Your task to perform on an android device: check android version Image 0: 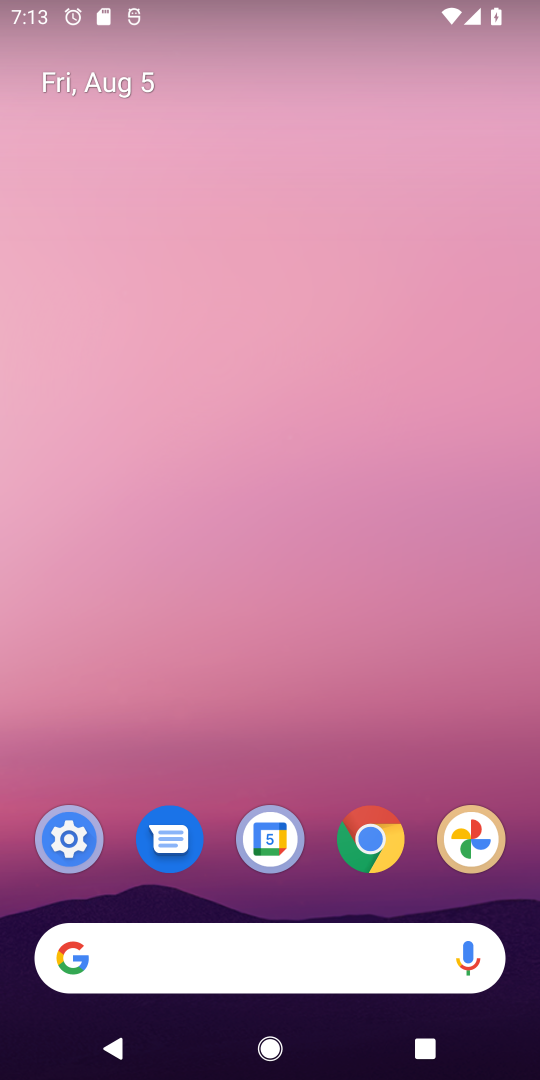
Step 0: click (91, 827)
Your task to perform on an android device: check android version Image 1: 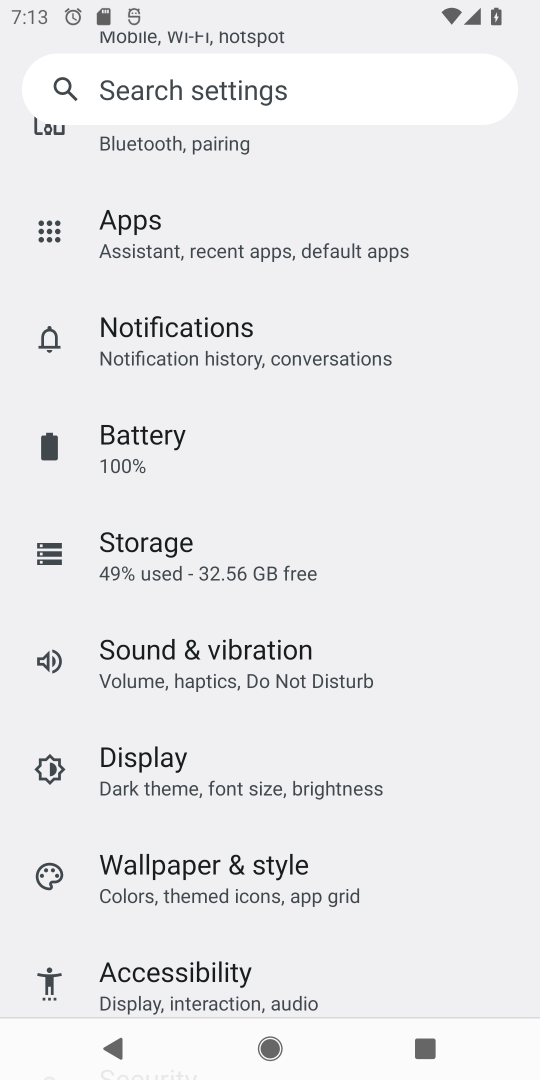
Step 1: drag from (307, 892) to (324, 305)
Your task to perform on an android device: check android version Image 2: 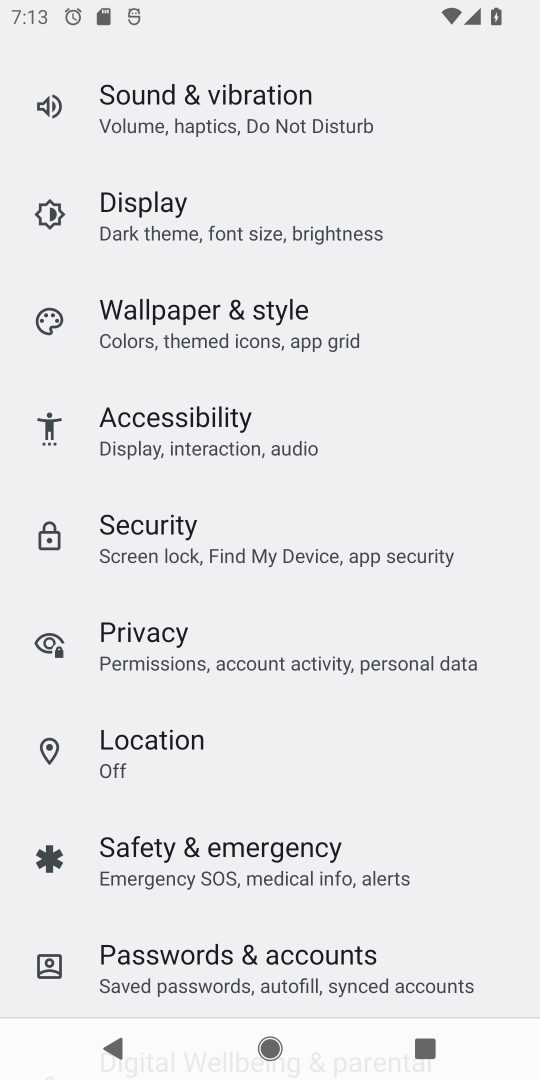
Step 2: drag from (370, 899) to (346, 300)
Your task to perform on an android device: check android version Image 3: 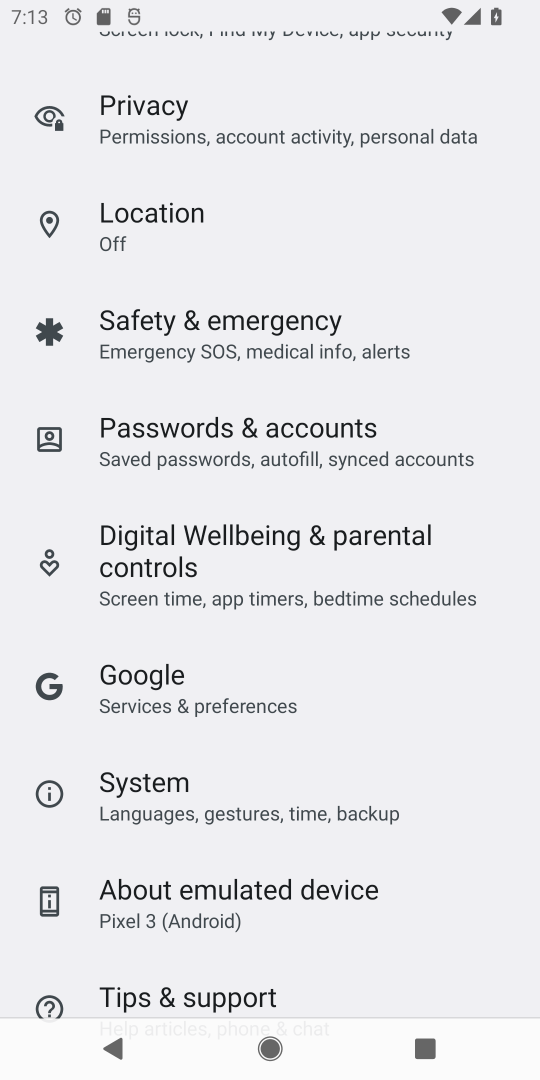
Step 3: click (264, 925)
Your task to perform on an android device: check android version Image 4: 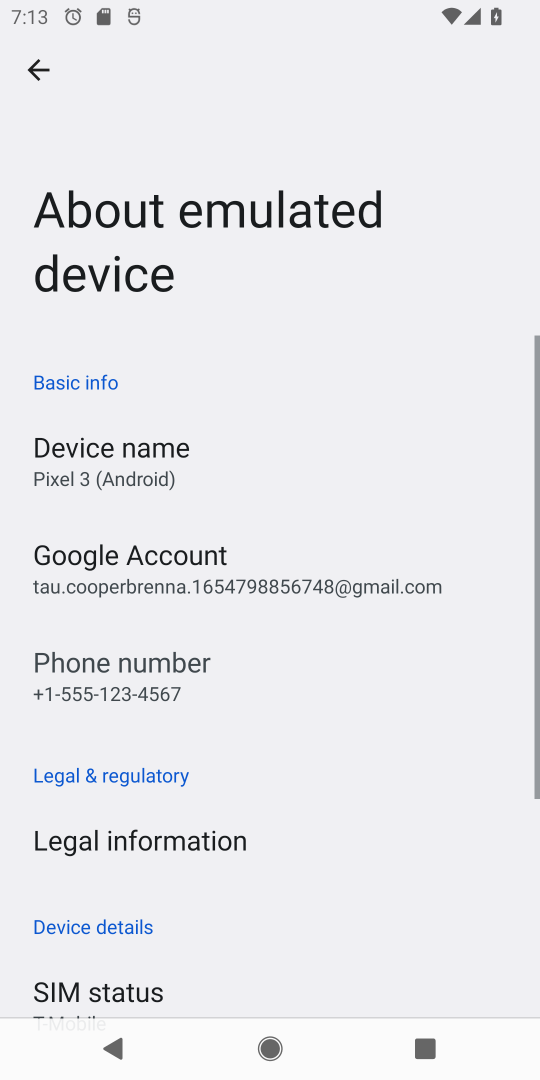
Step 4: drag from (305, 908) to (352, 184)
Your task to perform on an android device: check android version Image 5: 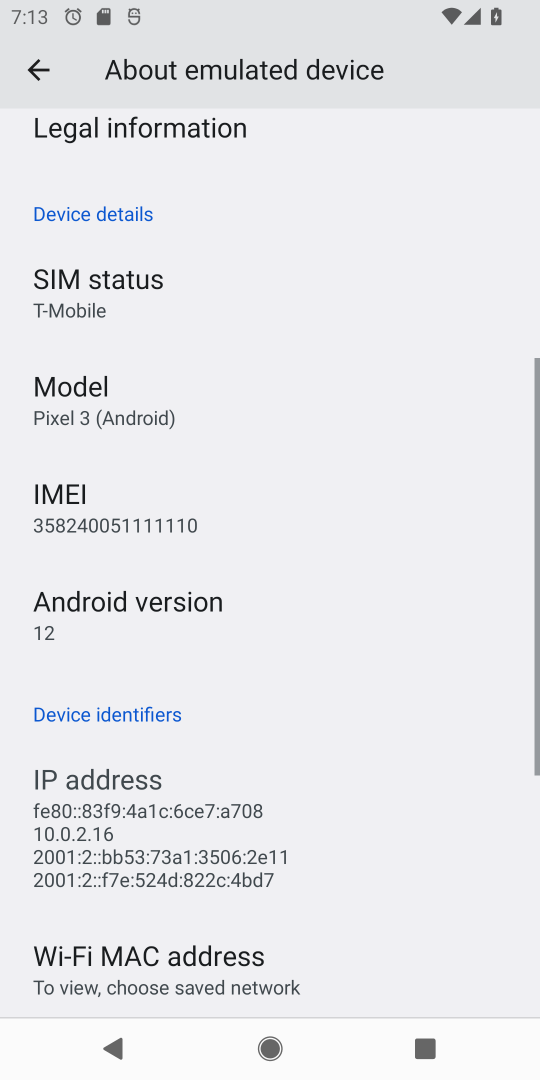
Step 5: click (274, 626)
Your task to perform on an android device: check android version Image 6: 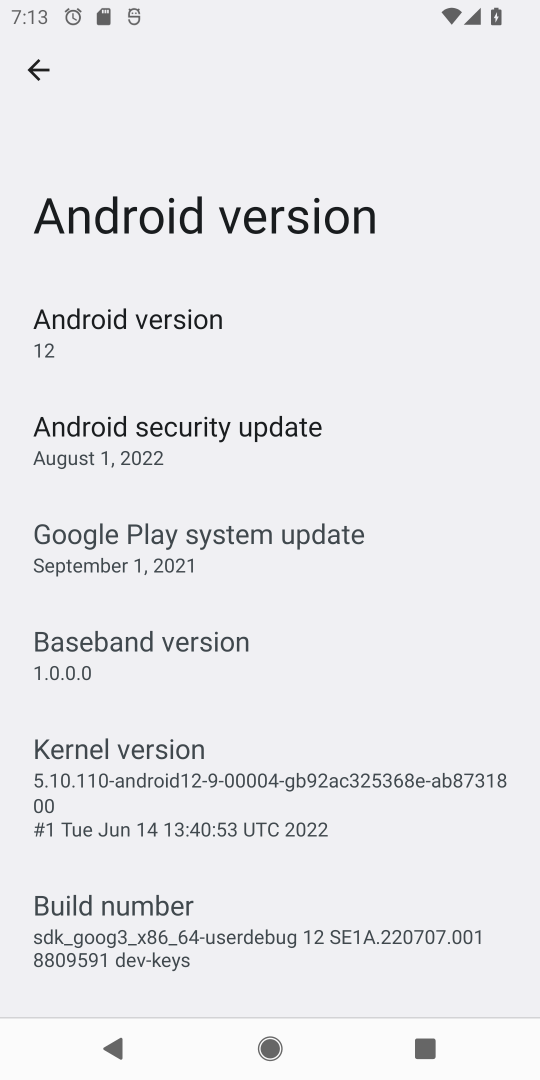
Step 6: click (187, 351)
Your task to perform on an android device: check android version Image 7: 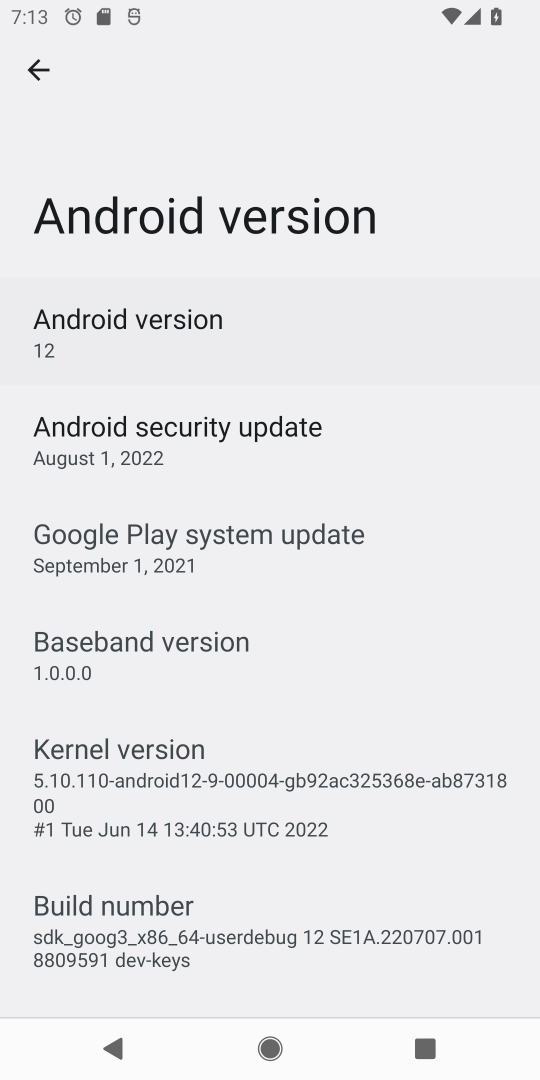
Step 7: task complete